Your task to perform on an android device: Find coffee shops on Maps Image 0: 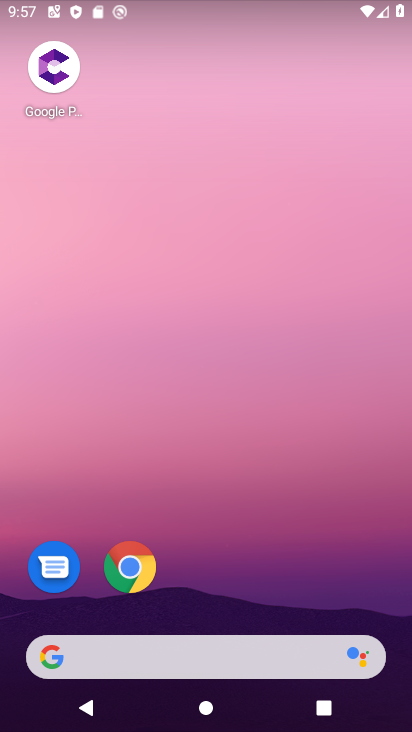
Step 0: drag from (24, 449) to (400, 421)
Your task to perform on an android device: Find coffee shops on Maps Image 1: 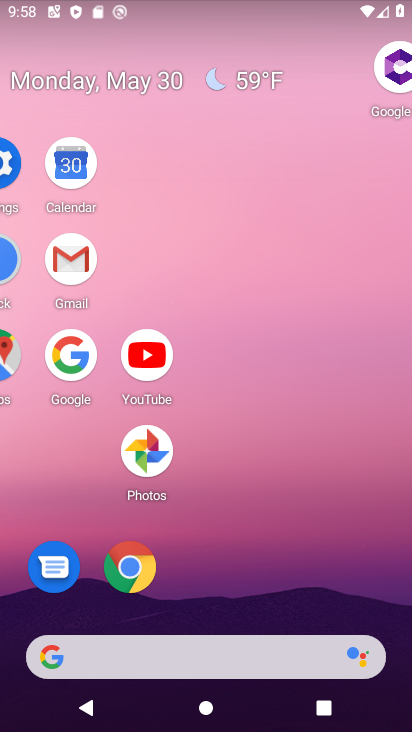
Step 1: click (275, 428)
Your task to perform on an android device: Find coffee shops on Maps Image 2: 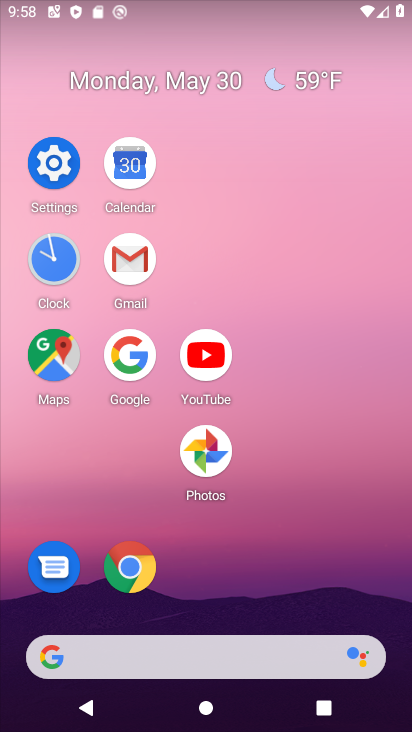
Step 2: click (64, 345)
Your task to perform on an android device: Find coffee shops on Maps Image 3: 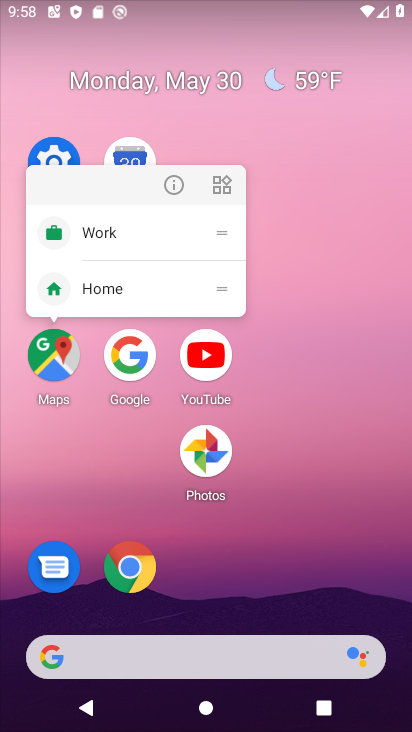
Step 3: click (64, 345)
Your task to perform on an android device: Find coffee shops on Maps Image 4: 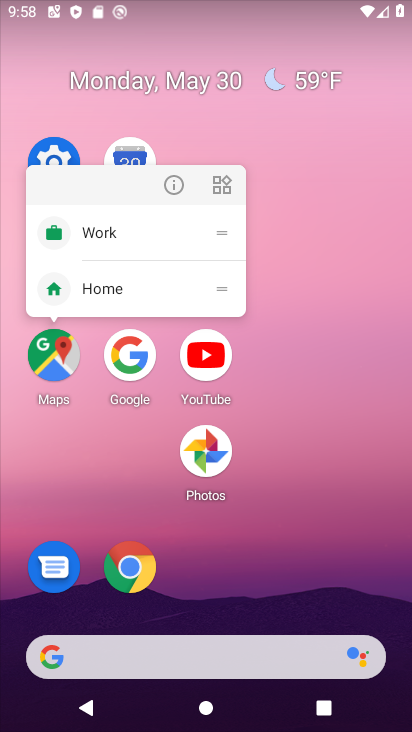
Step 4: click (44, 371)
Your task to perform on an android device: Find coffee shops on Maps Image 5: 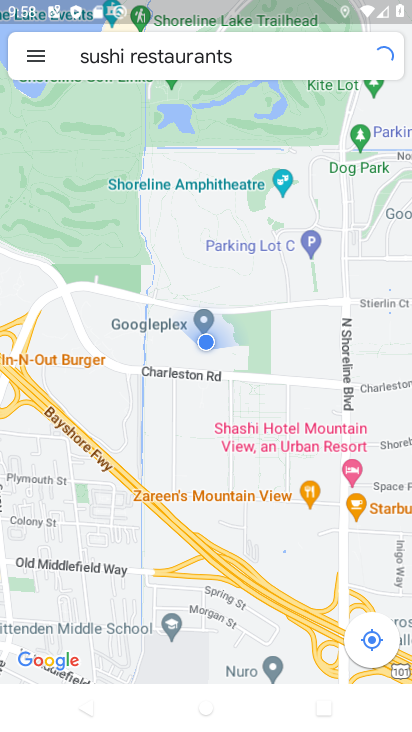
Step 5: click (281, 56)
Your task to perform on an android device: Find coffee shops on Maps Image 6: 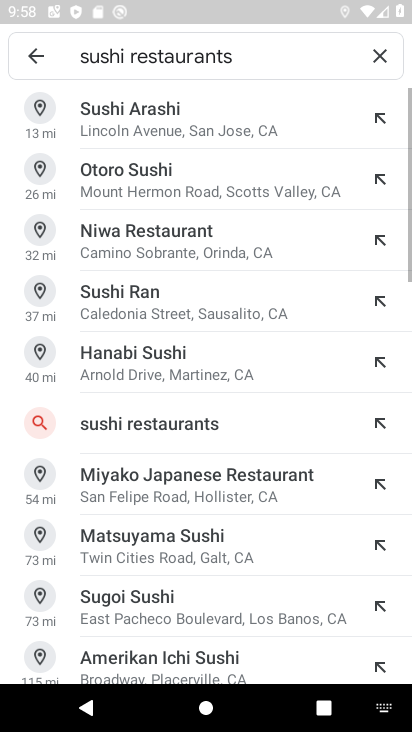
Step 6: click (380, 47)
Your task to perform on an android device: Find coffee shops on Maps Image 7: 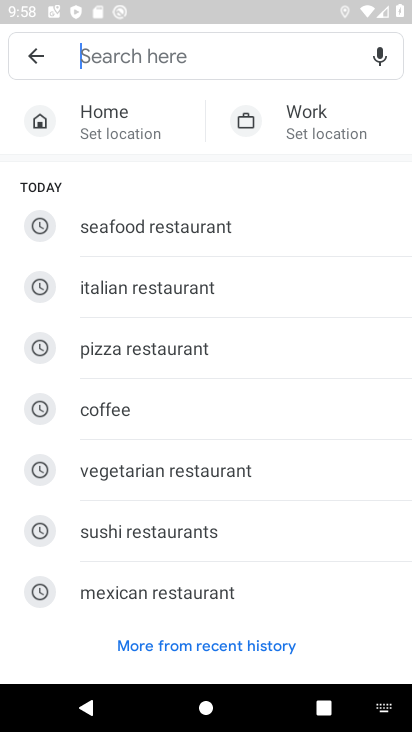
Step 7: drag from (238, 462) to (227, 173)
Your task to perform on an android device: Find coffee shops on Maps Image 8: 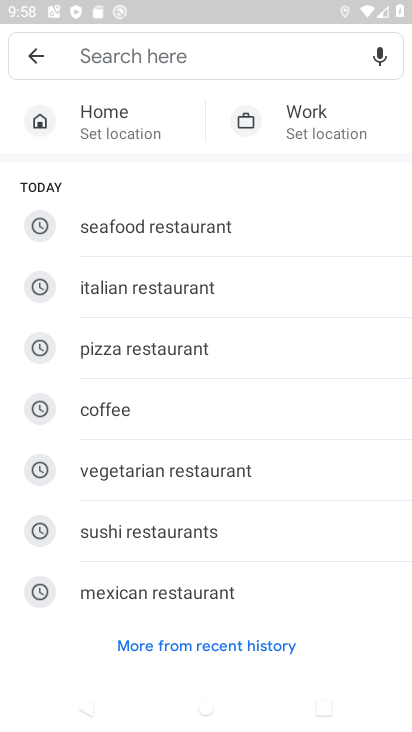
Step 8: click (182, 58)
Your task to perform on an android device: Find coffee shops on Maps Image 9: 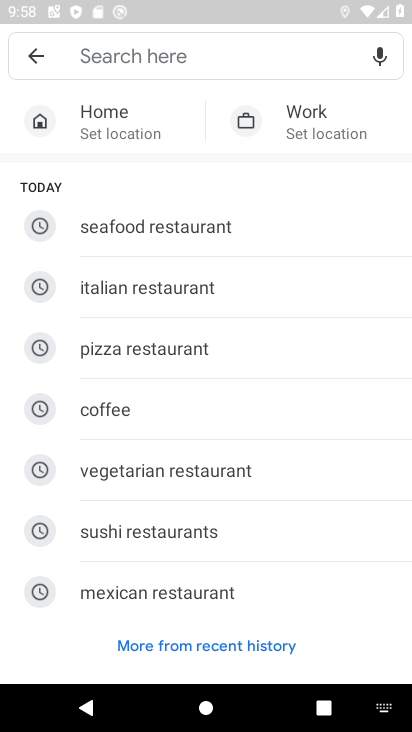
Step 9: type "coffee shops"
Your task to perform on an android device: Find coffee shops on Maps Image 10: 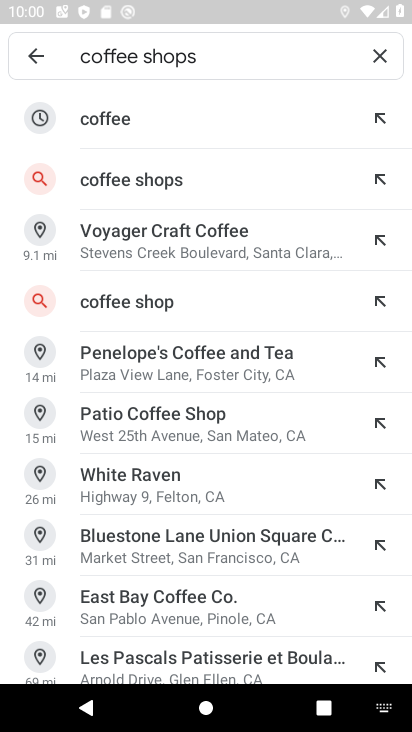
Step 10: task complete